Your task to perform on an android device: What's the weather going to be this weekend? Image 0: 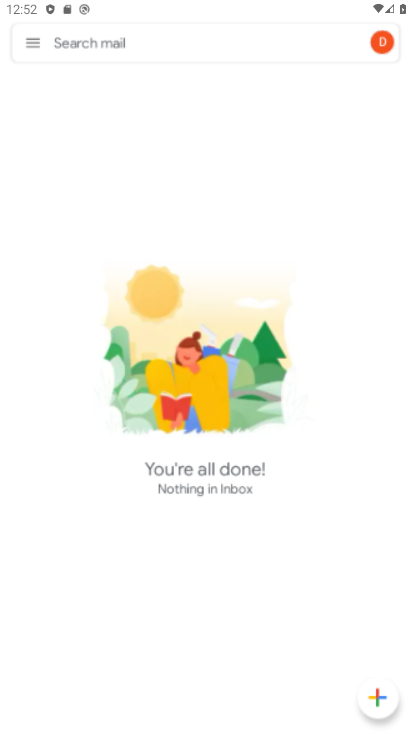
Step 0: drag from (298, 611) to (342, 159)
Your task to perform on an android device: What's the weather going to be this weekend? Image 1: 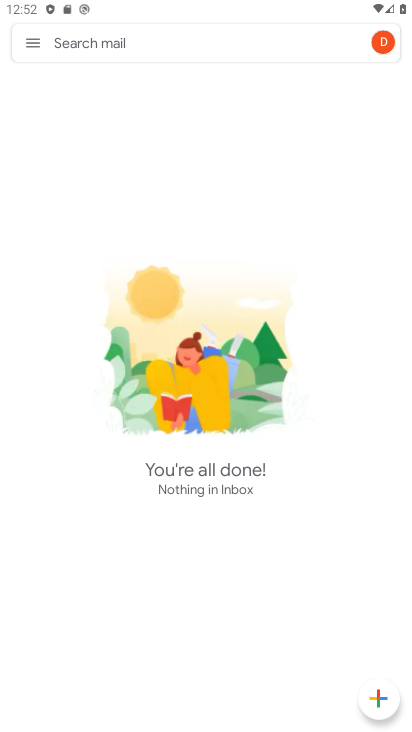
Step 1: press home button
Your task to perform on an android device: What's the weather going to be this weekend? Image 2: 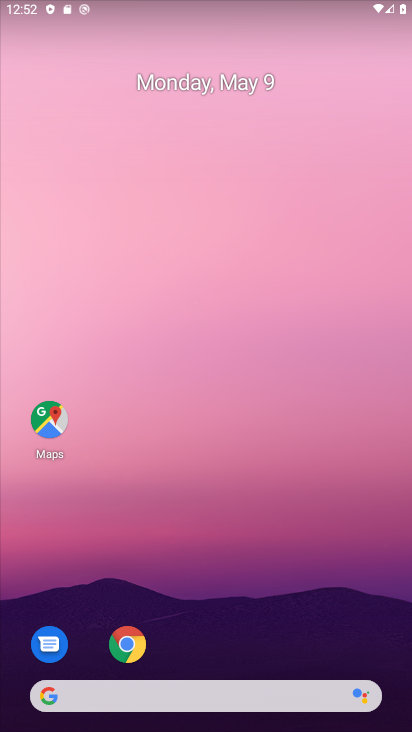
Step 2: drag from (183, 625) to (184, 258)
Your task to perform on an android device: What's the weather going to be this weekend? Image 3: 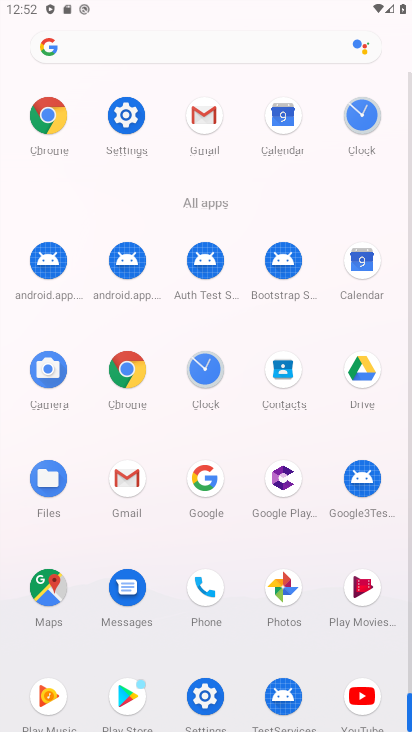
Step 3: click (217, 501)
Your task to perform on an android device: What's the weather going to be this weekend? Image 4: 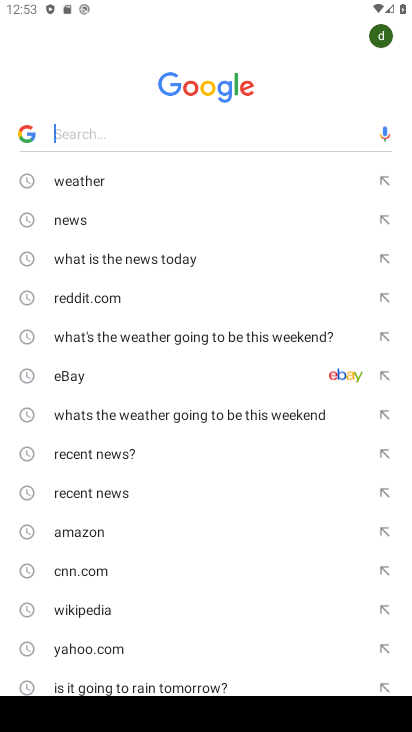
Step 4: click (78, 180)
Your task to perform on an android device: What's the weather going to be this weekend? Image 5: 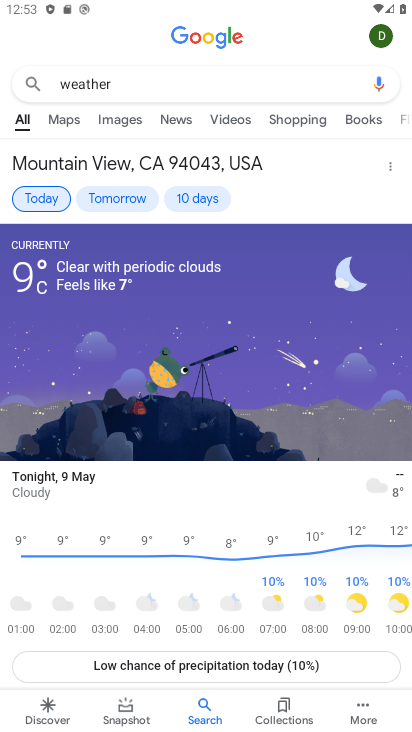
Step 5: click (201, 195)
Your task to perform on an android device: What's the weather going to be this weekend? Image 6: 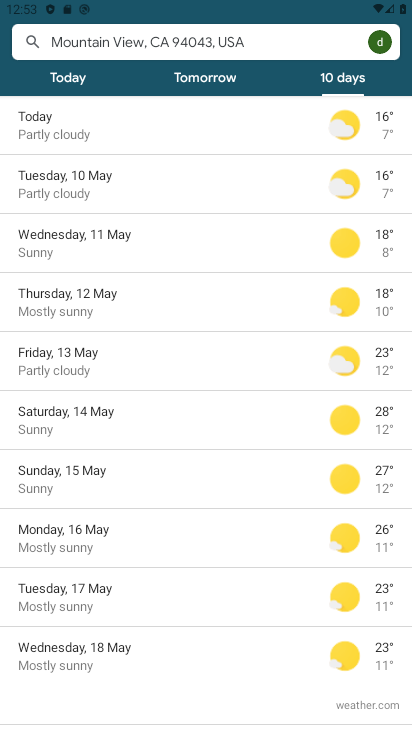
Step 6: task complete